Your task to perform on an android device: toggle data saver in the chrome app Image 0: 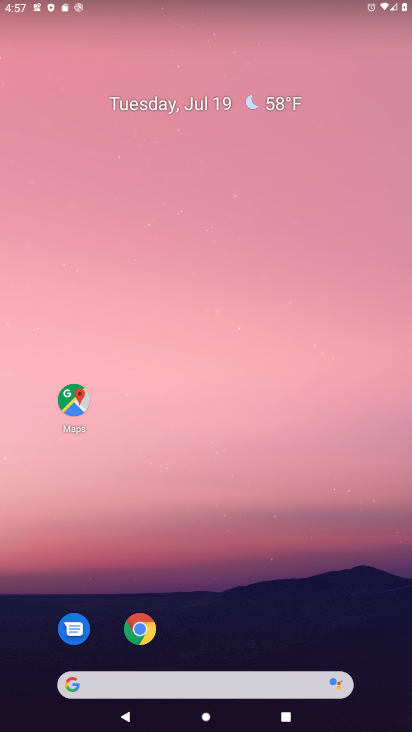
Step 0: press back button
Your task to perform on an android device: toggle data saver in the chrome app Image 1: 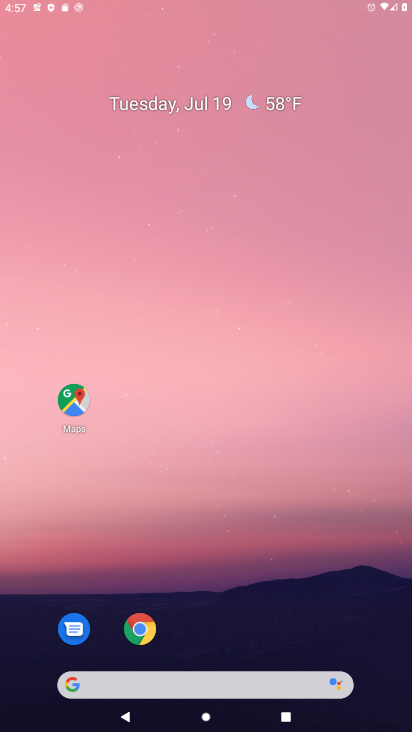
Step 1: drag from (245, 654) to (161, 141)
Your task to perform on an android device: toggle data saver in the chrome app Image 2: 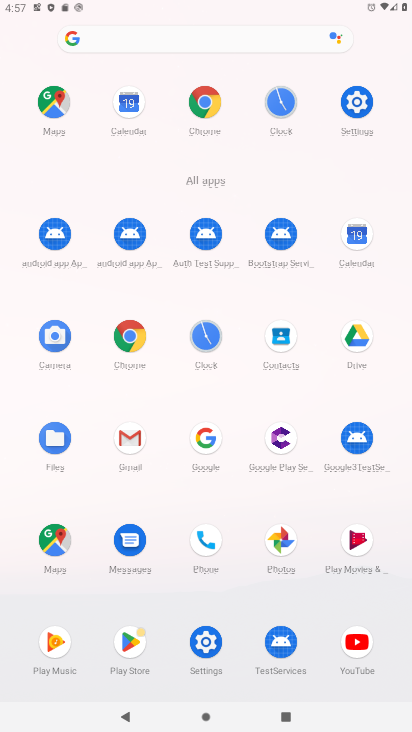
Step 2: click (200, 99)
Your task to perform on an android device: toggle data saver in the chrome app Image 3: 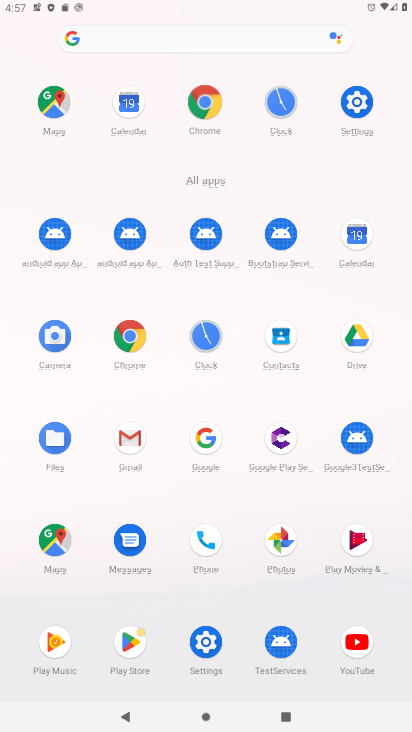
Step 3: click (205, 100)
Your task to perform on an android device: toggle data saver in the chrome app Image 4: 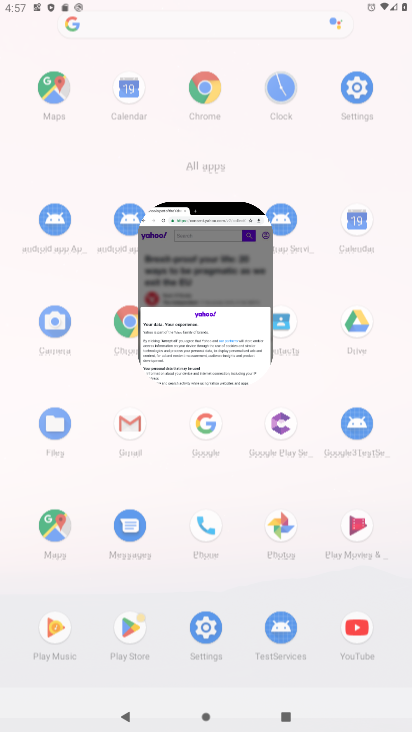
Step 4: click (206, 100)
Your task to perform on an android device: toggle data saver in the chrome app Image 5: 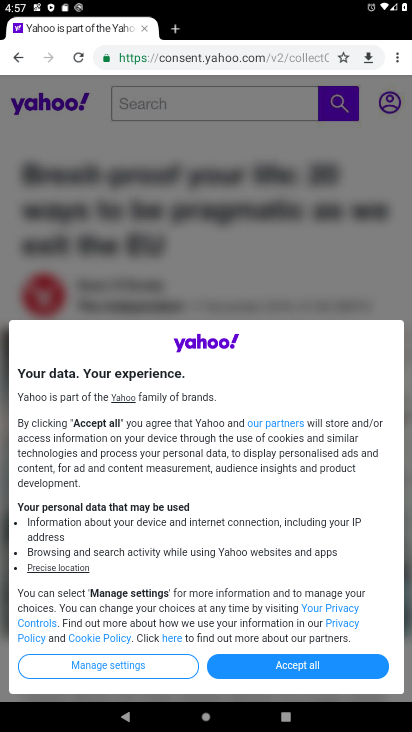
Step 5: drag from (398, 61) to (273, 377)
Your task to perform on an android device: toggle data saver in the chrome app Image 6: 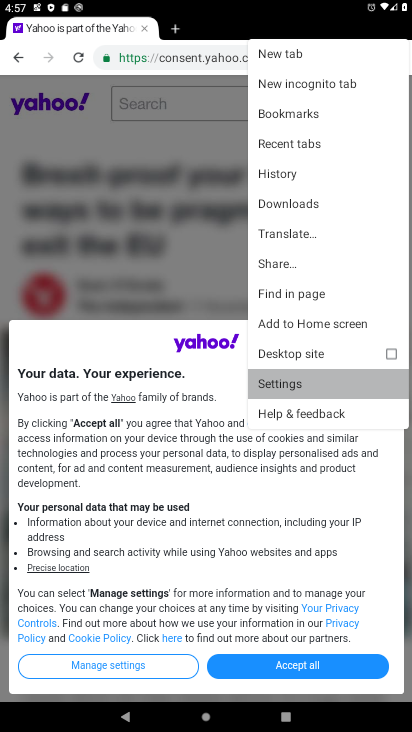
Step 6: click (274, 376)
Your task to perform on an android device: toggle data saver in the chrome app Image 7: 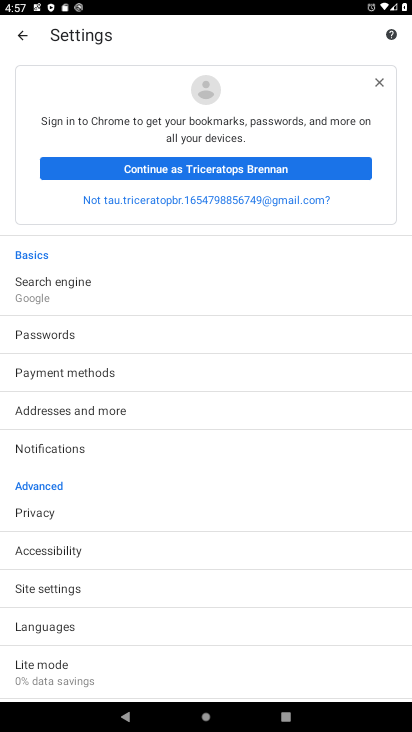
Step 7: click (59, 662)
Your task to perform on an android device: toggle data saver in the chrome app Image 8: 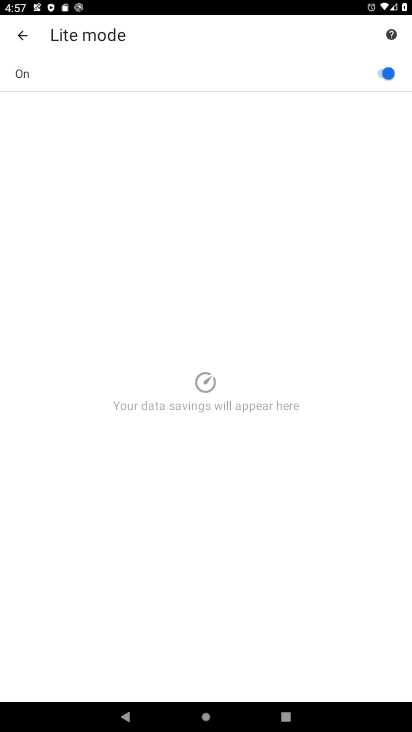
Step 8: click (388, 69)
Your task to perform on an android device: toggle data saver in the chrome app Image 9: 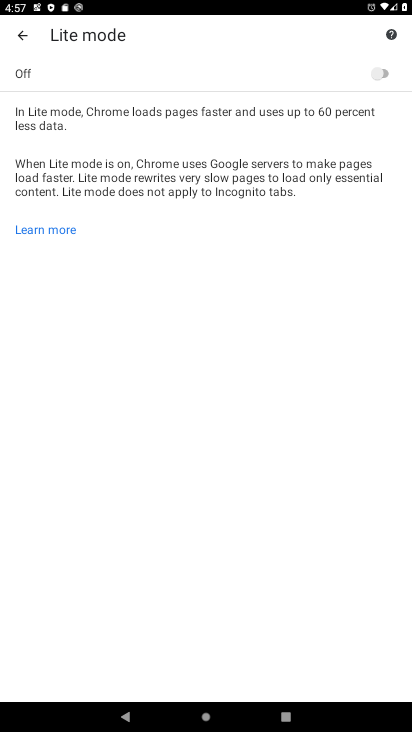
Step 9: task complete